Your task to perform on an android device: Open ESPN.com Image 0: 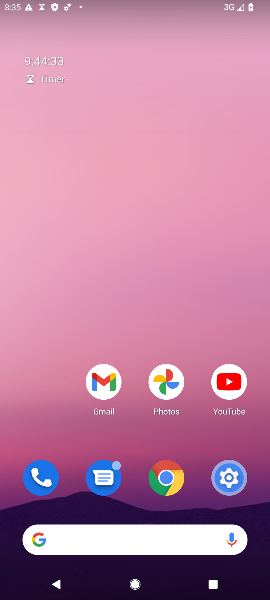
Step 0: click (169, 472)
Your task to perform on an android device: Open ESPN.com Image 1: 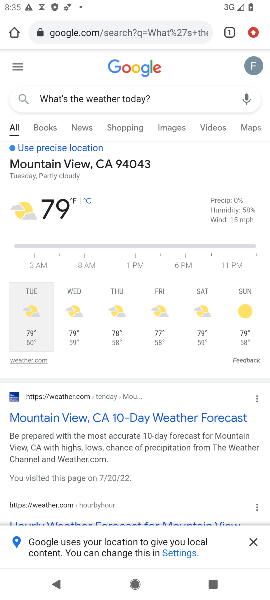
Step 1: click (179, 28)
Your task to perform on an android device: Open ESPN.com Image 2: 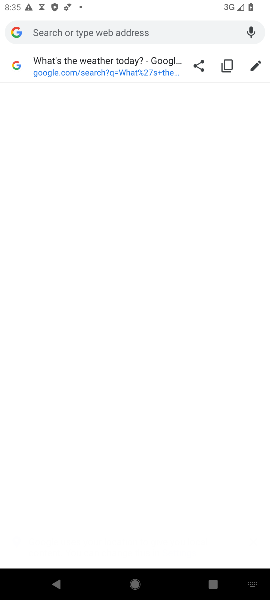
Step 2: type "Espn.com"
Your task to perform on an android device: Open ESPN.com Image 3: 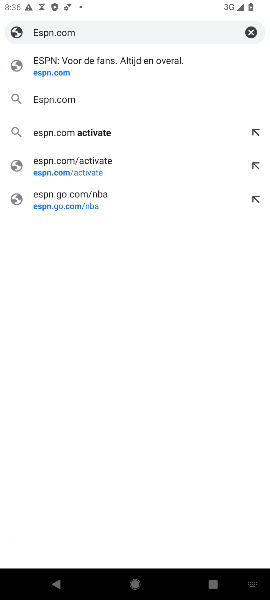
Step 3: click (166, 71)
Your task to perform on an android device: Open ESPN.com Image 4: 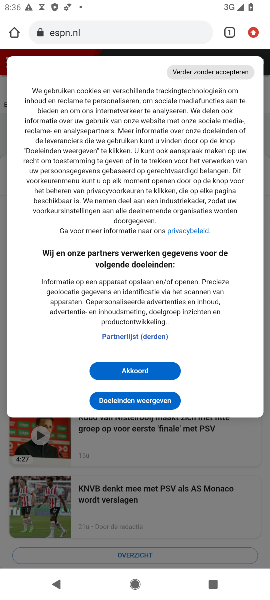
Step 4: task complete